Your task to perform on an android device: turn on improve location accuracy Image 0: 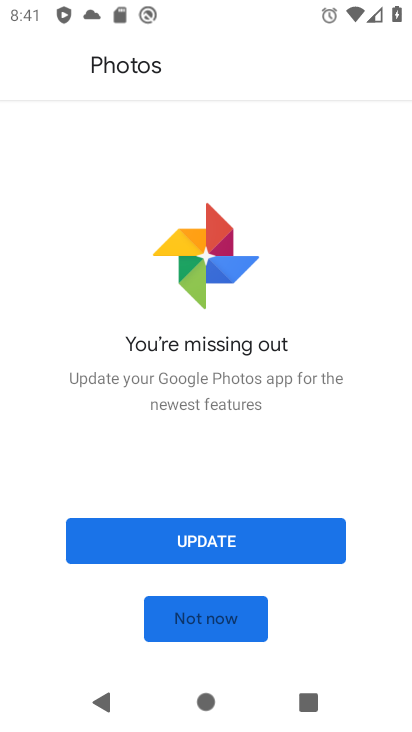
Step 0: press home button
Your task to perform on an android device: turn on improve location accuracy Image 1: 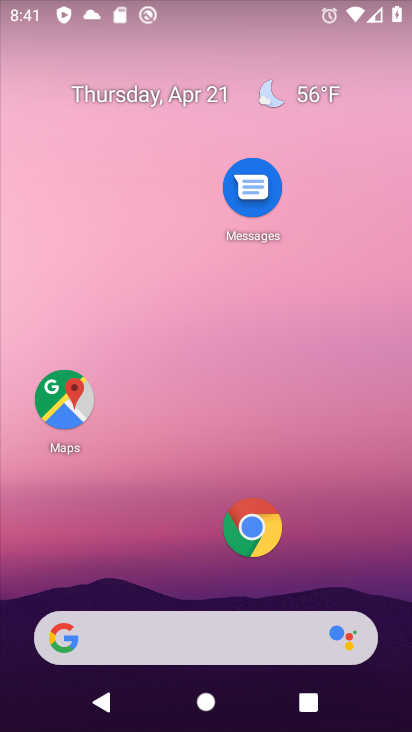
Step 1: drag from (183, 647) to (309, 67)
Your task to perform on an android device: turn on improve location accuracy Image 2: 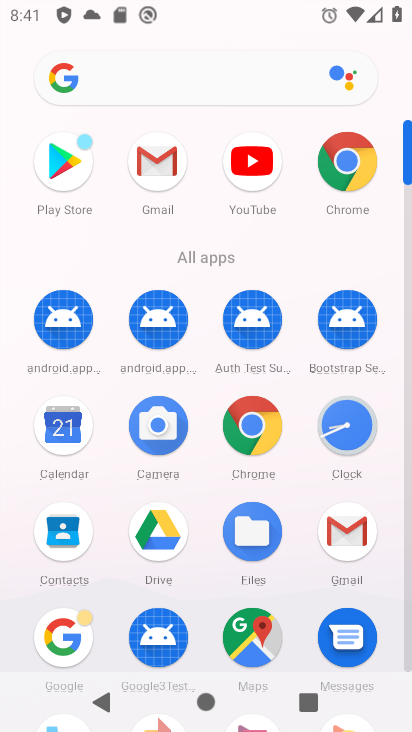
Step 2: drag from (188, 586) to (366, 106)
Your task to perform on an android device: turn on improve location accuracy Image 3: 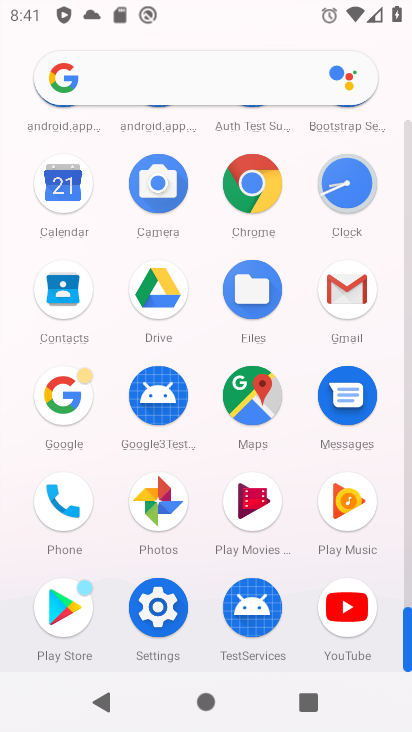
Step 3: click (154, 595)
Your task to perform on an android device: turn on improve location accuracy Image 4: 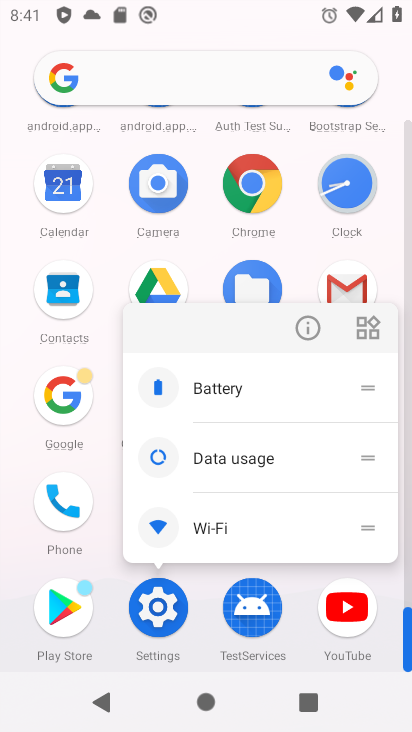
Step 4: click (166, 622)
Your task to perform on an android device: turn on improve location accuracy Image 5: 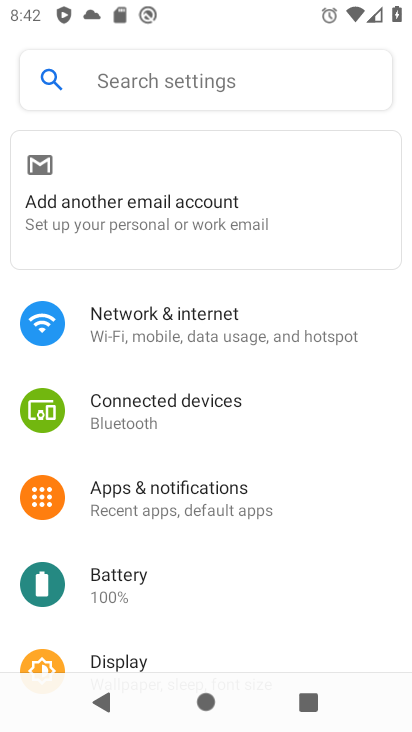
Step 5: drag from (166, 622) to (357, 144)
Your task to perform on an android device: turn on improve location accuracy Image 6: 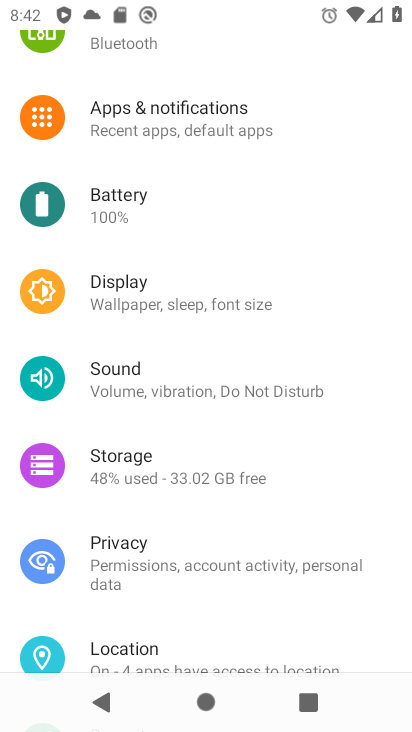
Step 6: click (125, 653)
Your task to perform on an android device: turn on improve location accuracy Image 7: 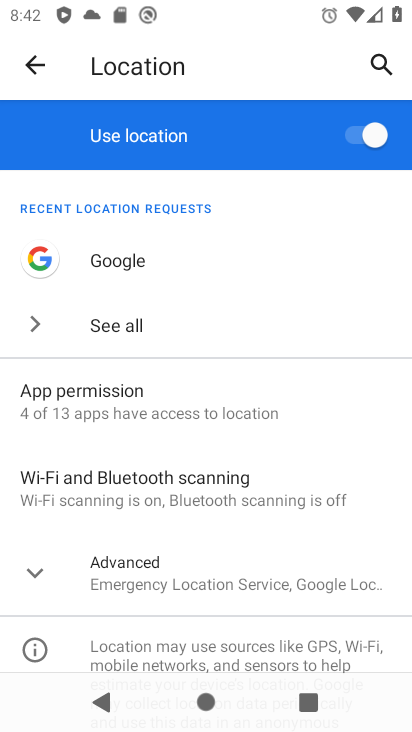
Step 7: click (132, 580)
Your task to perform on an android device: turn on improve location accuracy Image 8: 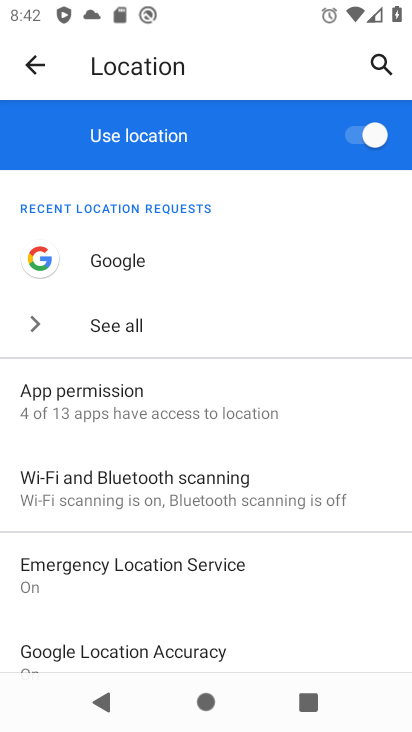
Step 8: drag from (108, 611) to (306, 74)
Your task to perform on an android device: turn on improve location accuracy Image 9: 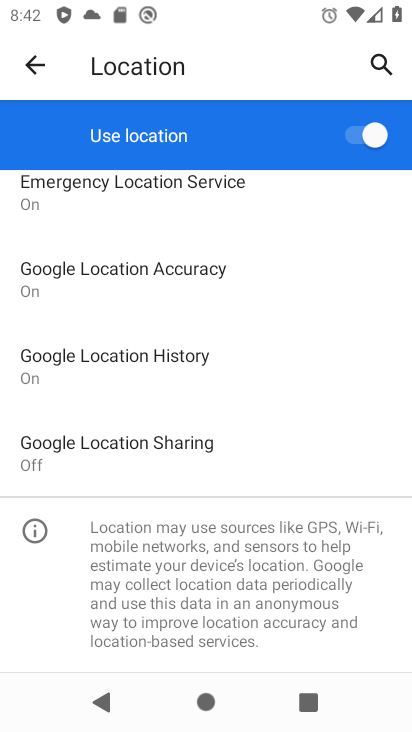
Step 9: click (192, 271)
Your task to perform on an android device: turn on improve location accuracy Image 10: 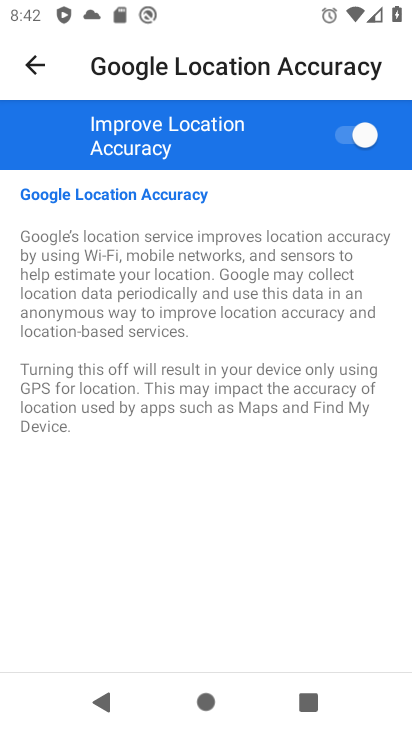
Step 10: task complete